Your task to perform on an android device: Show me recent news Image 0: 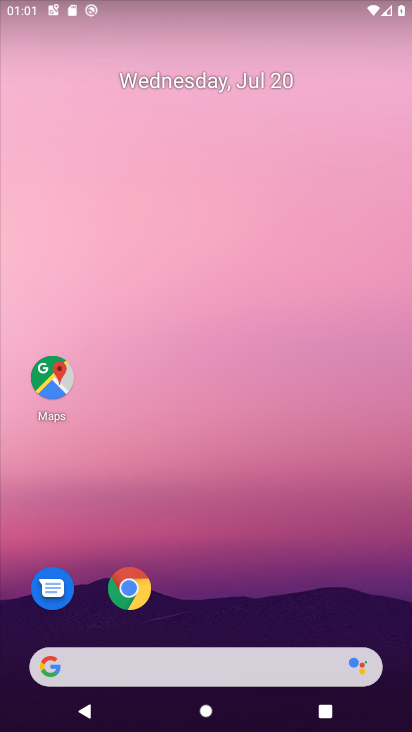
Step 0: drag from (201, 495) to (201, 242)
Your task to perform on an android device: Show me recent news Image 1: 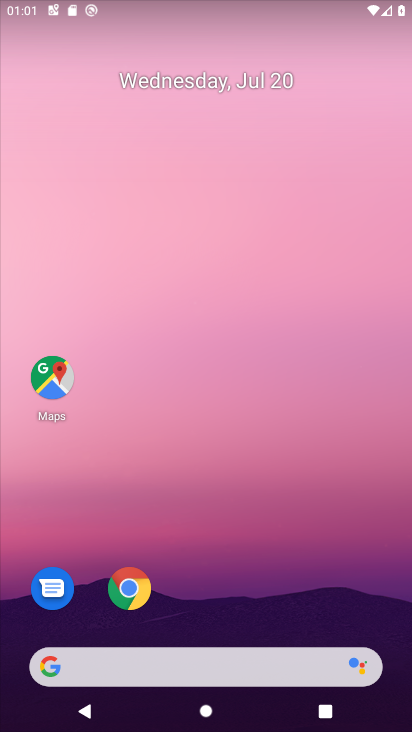
Step 1: click (131, 582)
Your task to perform on an android device: Show me recent news Image 2: 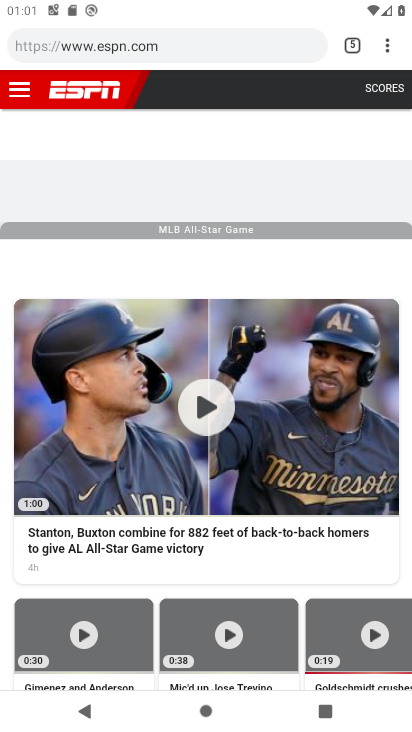
Step 2: click (386, 42)
Your task to perform on an android device: Show me recent news Image 3: 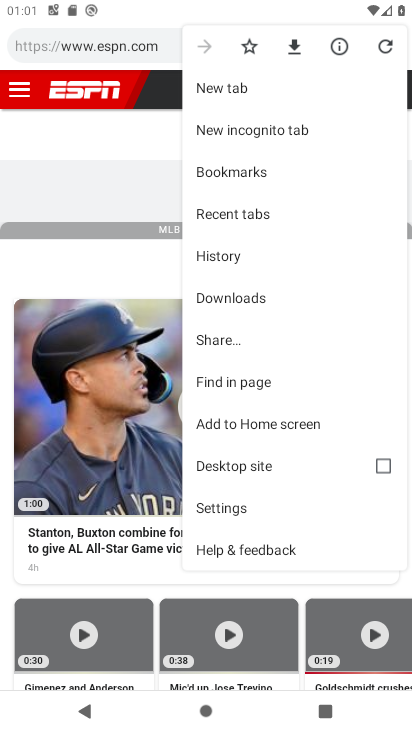
Step 3: click (209, 86)
Your task to perform on an android device: Show me recent news Image 4: 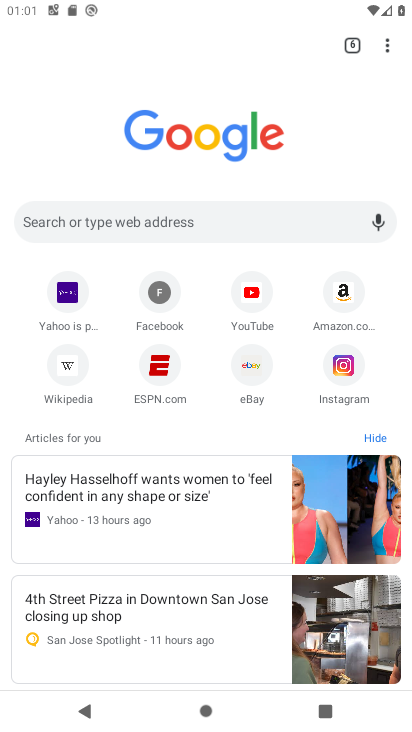
Step 4: click (216, 216)
Your task to perform on an android device: Show me recent news Image 5: 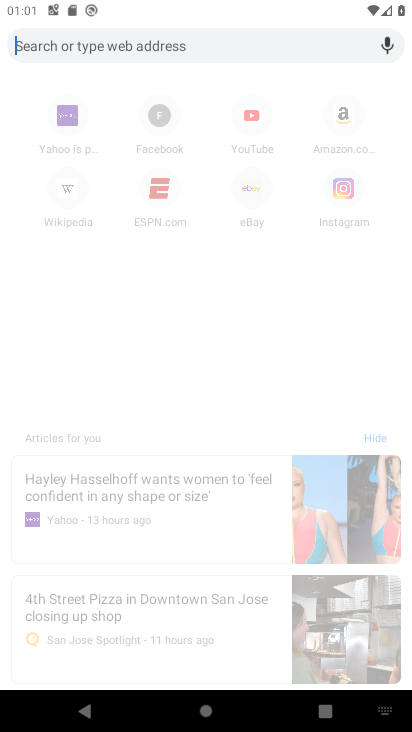
Step 5: type "Show me recent news "
Your task to perform on an android device: Show me recent news Image 6: 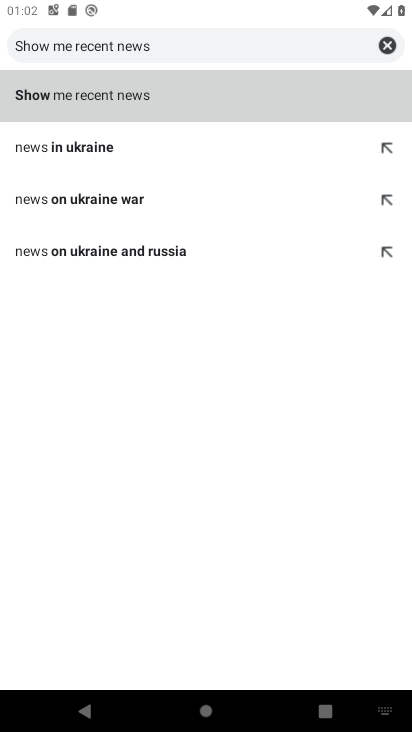
Step 6: click (147, 97)
Your task to perform on an android device: Show me recent news Image 7: 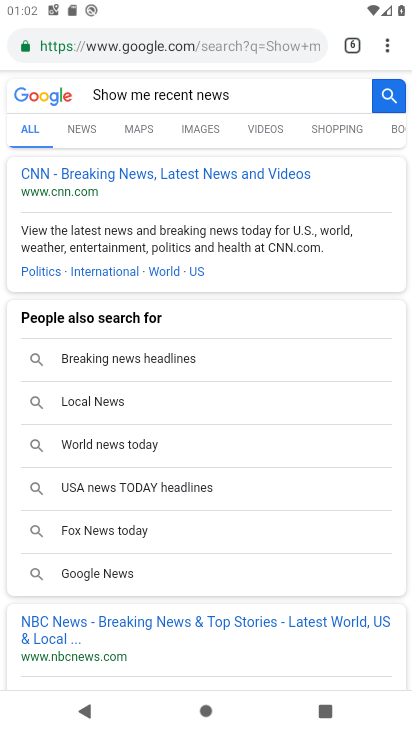
Step 7: task complete